Your task to perform on an android device: Go to Wikipedia Image 0: 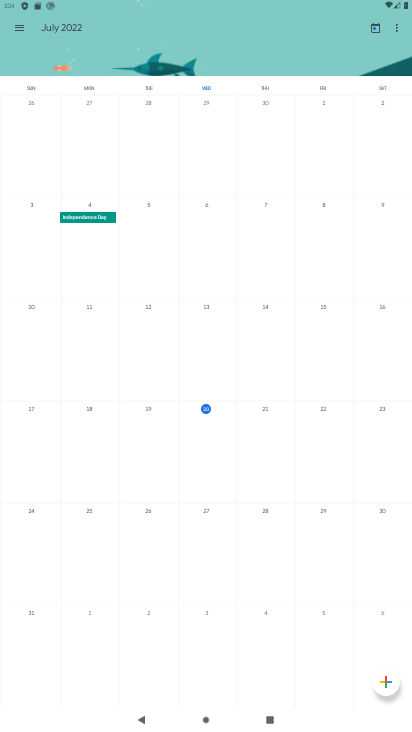
Step 0: press home button
Your task to perform on an android device: Go to Wikipedia Image 1: 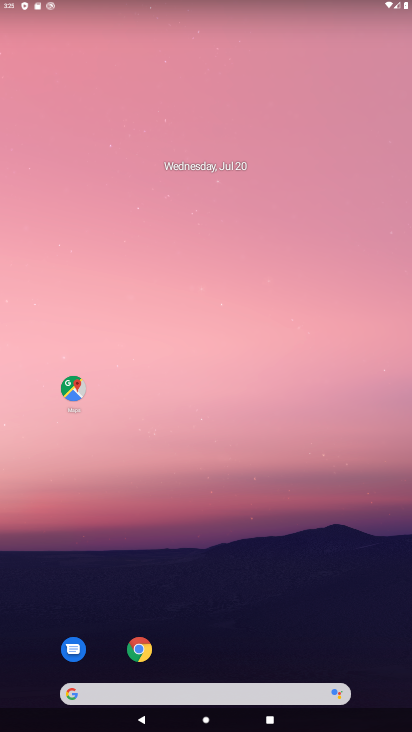
Step 1: drag from (202, 634) to (198, 410)
Your task to perform on an android device: Go to Wikipedia Image 2: 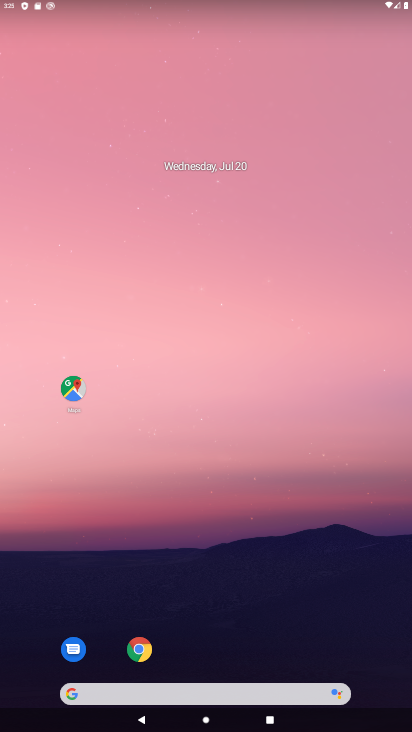
Step 2: click (133, 650)
Your task to perform on an android device: Go to Wikipedia Image 3: 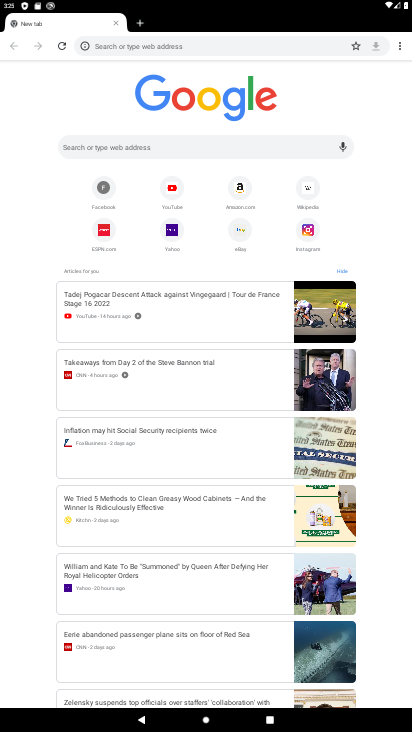
Step 3: click (305, 181)
Your task to perform on an android device: Go to Wikipedia Image 4: 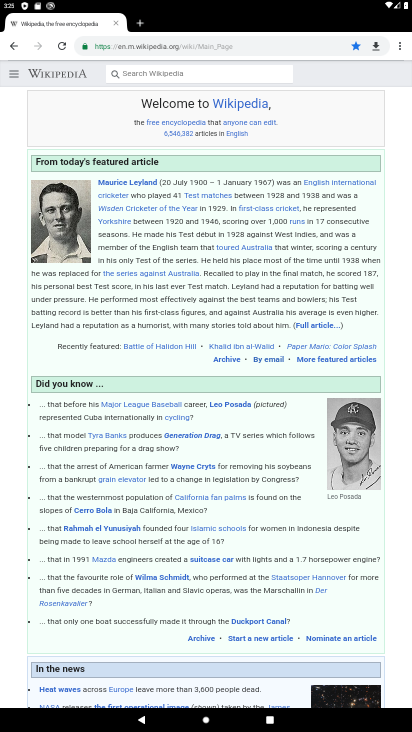
Step 4: task complete